Your task to perform on an android device: Play the last video I watched on Youtube Image 0: 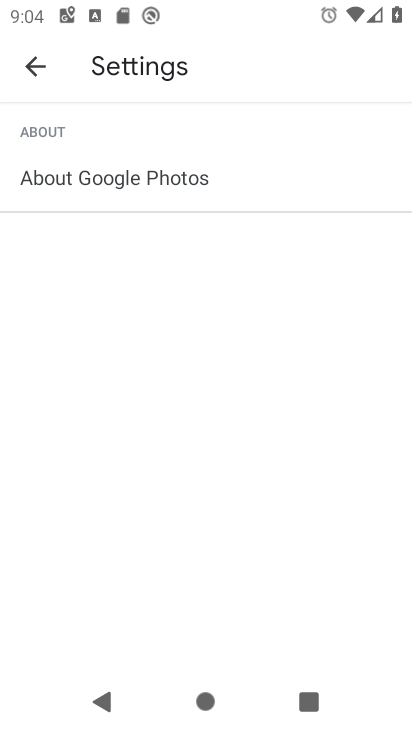
Step 0: press home button
Your task to perform on an android device: Play the last video I watched on Youtube Image 1: 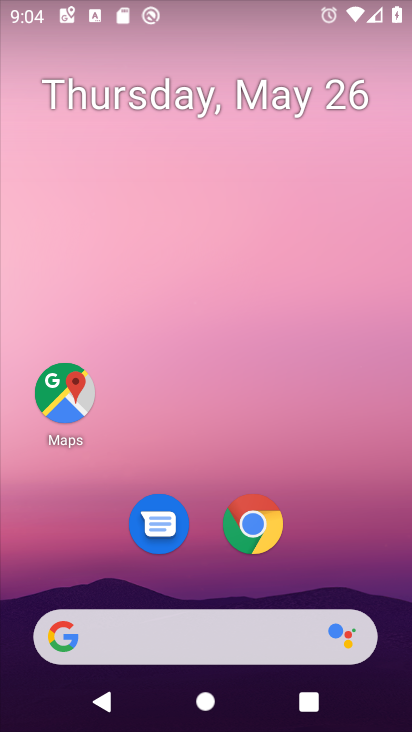
Step 1: drag from (223, 557) to (278, 33)
Your task to perform on an android device: Play the last video I watched on Youtube Image 2: 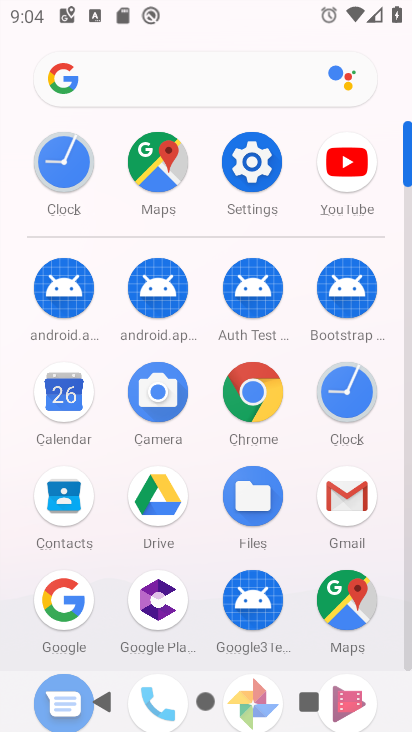
Step 2: click (354, 159)
Your task to perform on an android device: Play the last video I watched on Youtube Image 3: 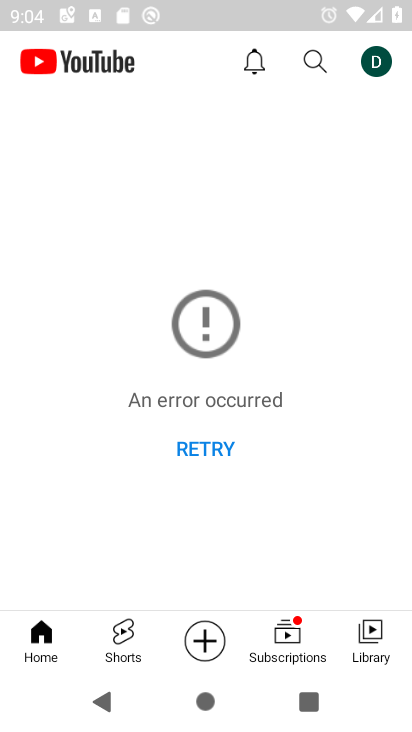
Step 3: click (359, 627)
Your task to perform on an android device: Play the last video I watched on Youtube Image 4: 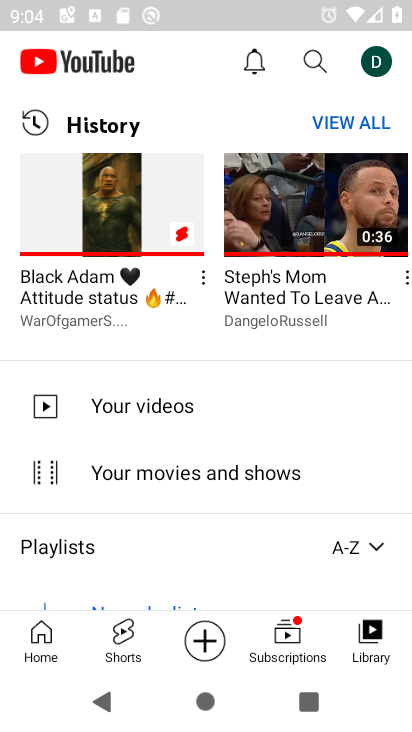
Step 4: drag from (255, 410) to (267, 111)
Your task to perform on an android device: Play the last video I watched on Youtube Image 5: 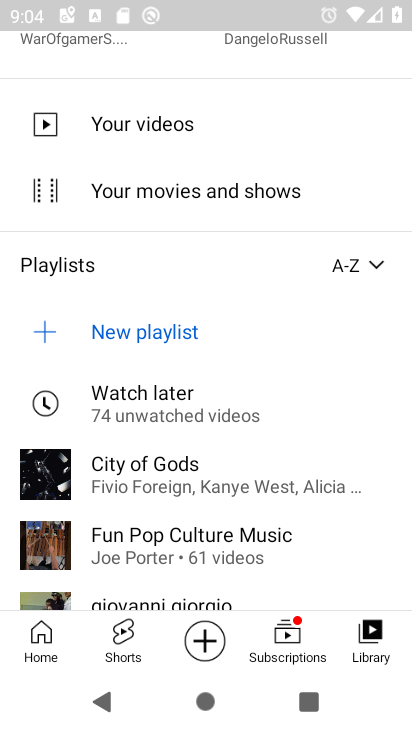
Step 5: drag from (256, 147) to (230, 611)
Your task to perform on an android device: Play the last video I watched on Youtube Image 6: 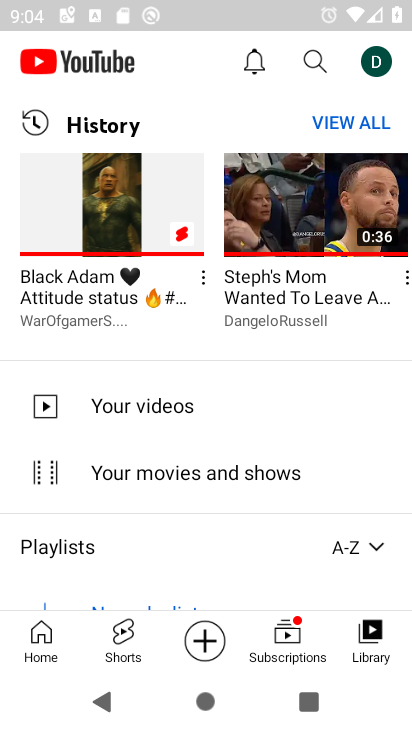
Step 6: click (40, 118)
Your task to perform on an android device: Play the last video I watched on Youtube Image 7: 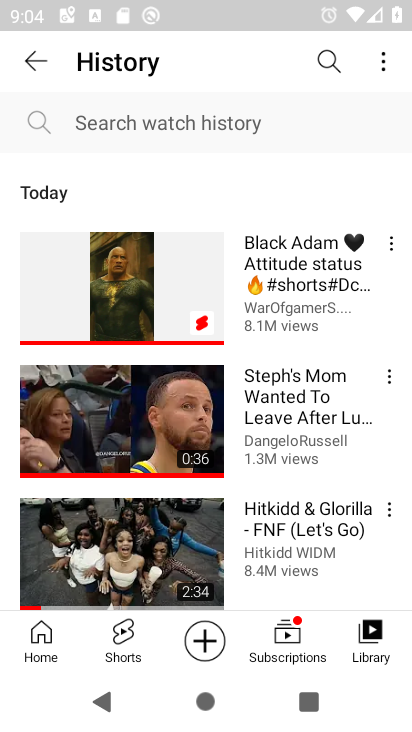
Step 7: click (150, 300)
Your task to perform on an android device: Play the last video I watched on Youtube Image 8: 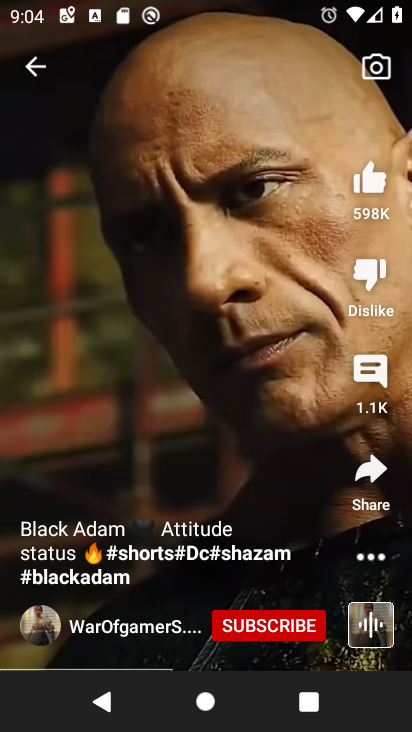
Step 8: task complete